Your task to perform on an android device: turn off sleep mode Image 0: 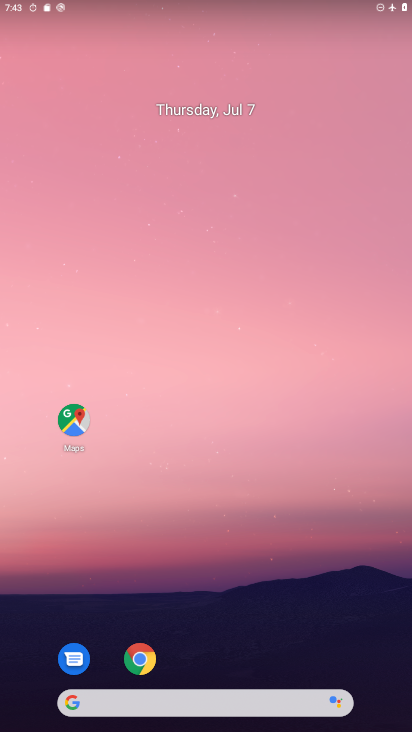
Step 0: drag from (378, 667) to (204, 11)
Your task to perform on an android device: turn off sleep mode Image 1: 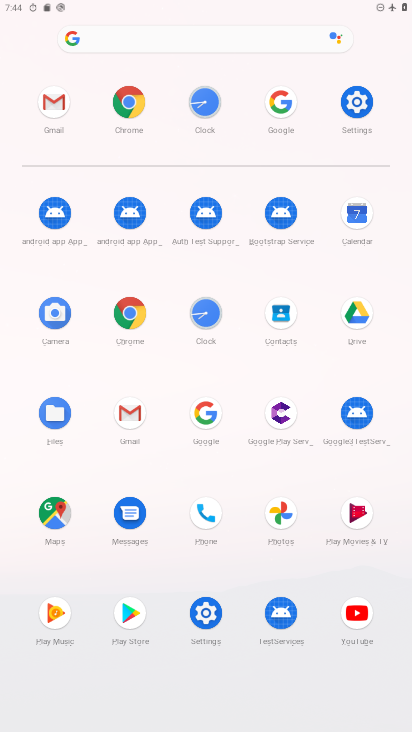
Step 1: click (215, 620)
Your task to perform on an android device: turn off sleep mode Image 2: 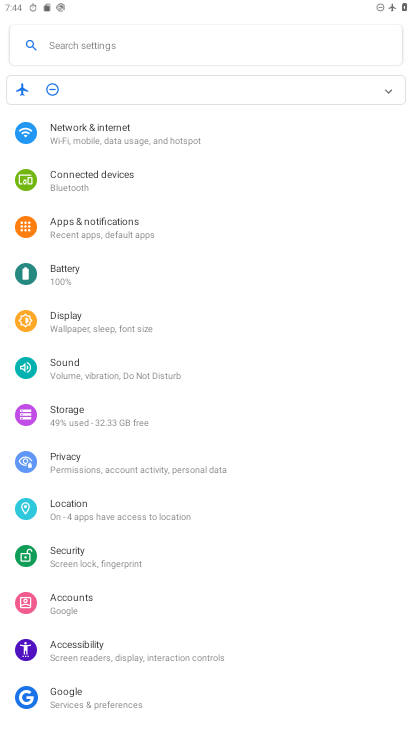
Step 2: task complete